Your task to perform on an android device: empty trash in google photos Image 0: 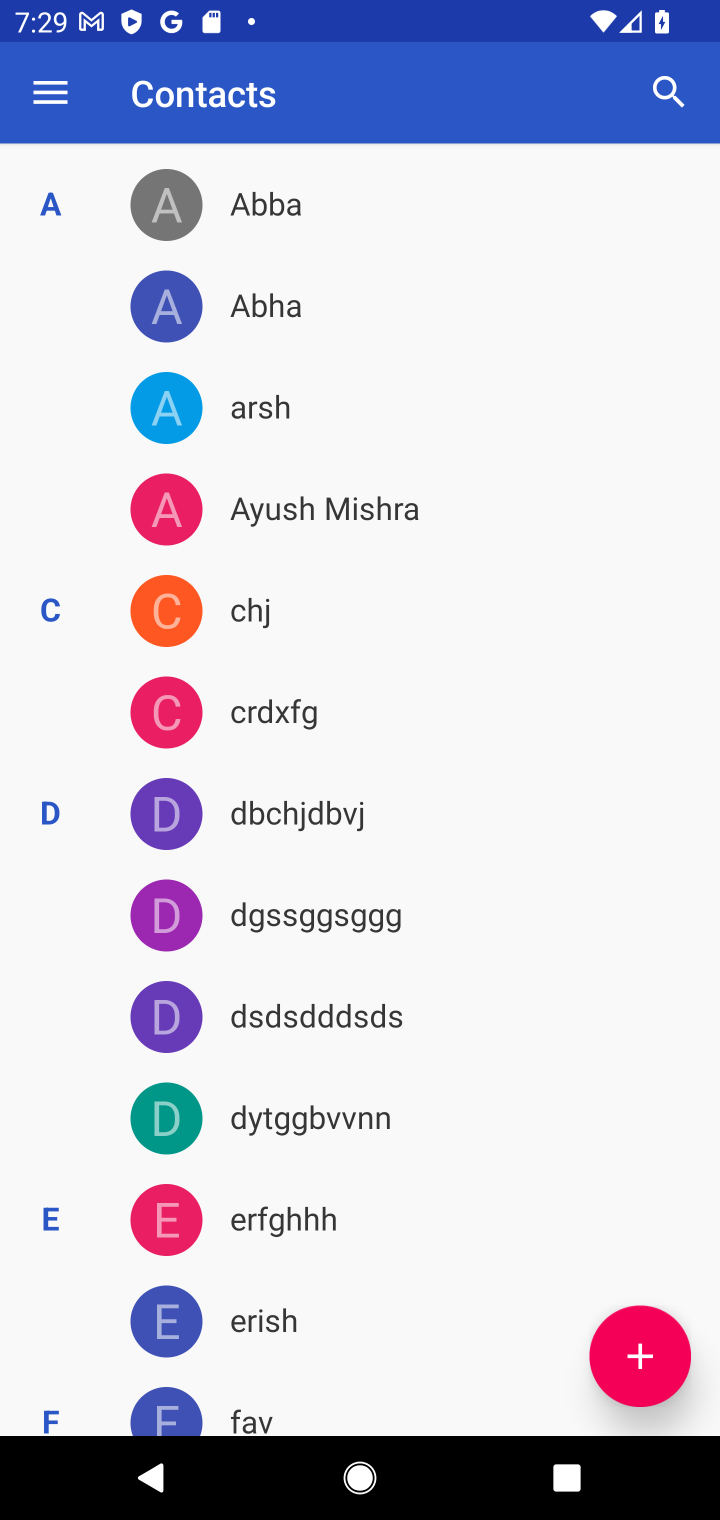
Step 0: press home button
Your task to perform on an android device: empty trash in google photos Image 1: 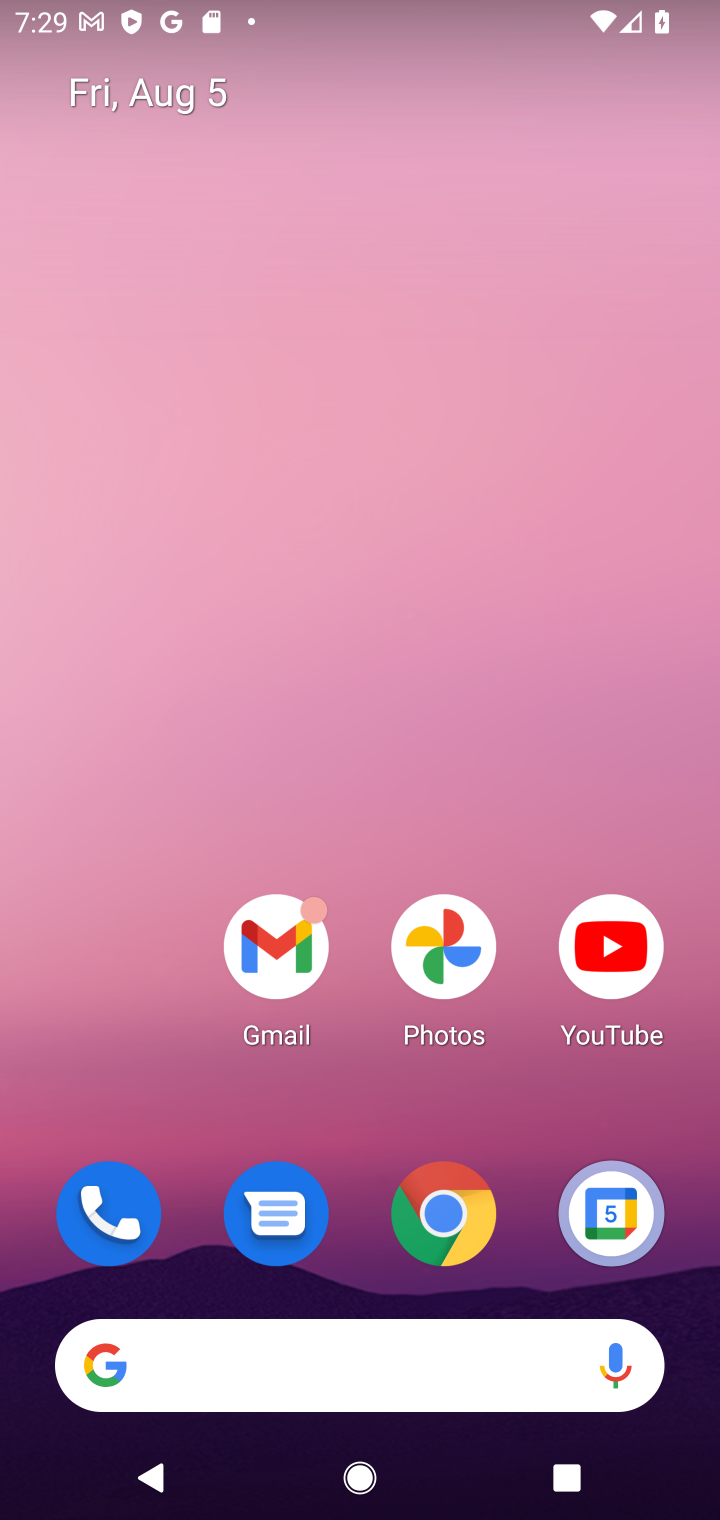
Step 1: drag from (393, 1150) to (408, 311)
Your task to perform on an android device: empty trash in google photos Image 2: 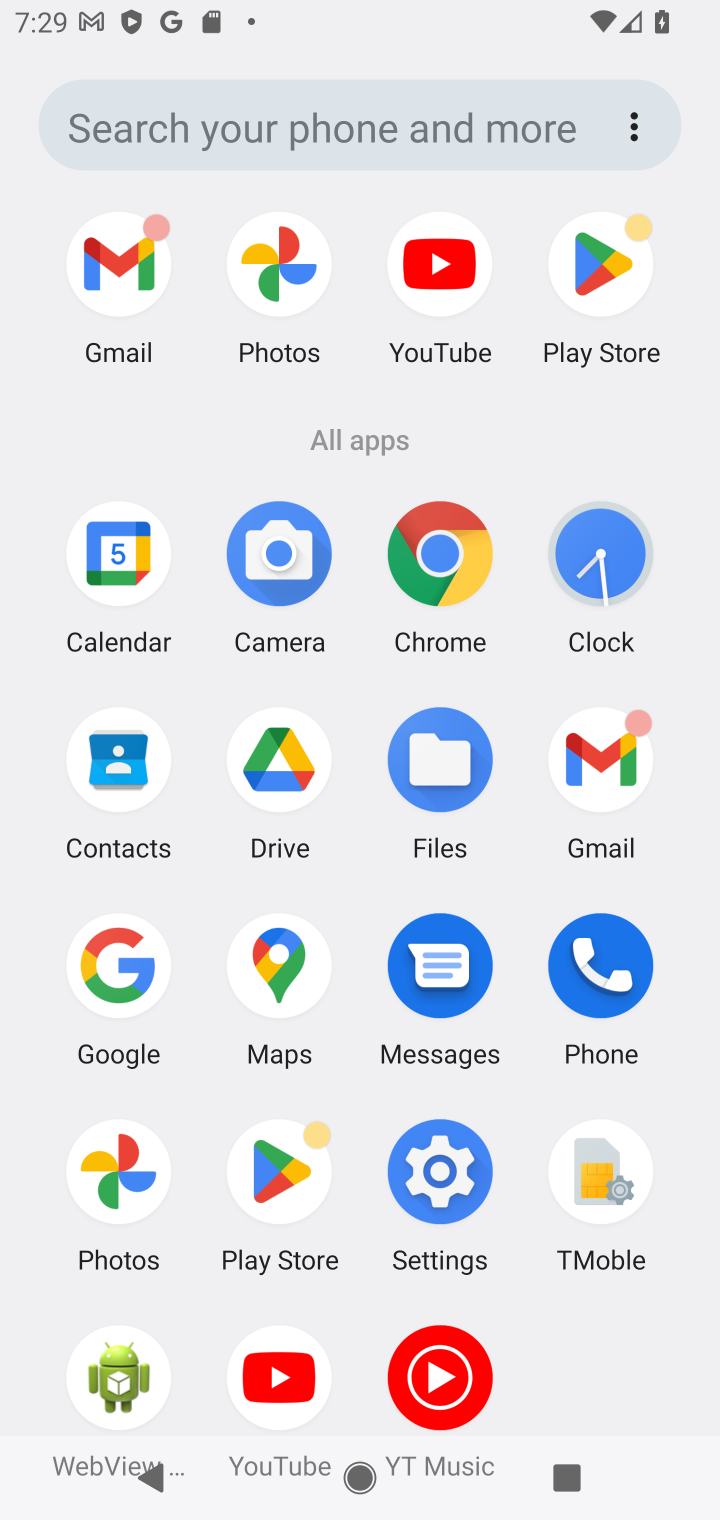
Step 2: click (99, 1113)
Your task to perform on an android device: empty trash in google photos Image 3: 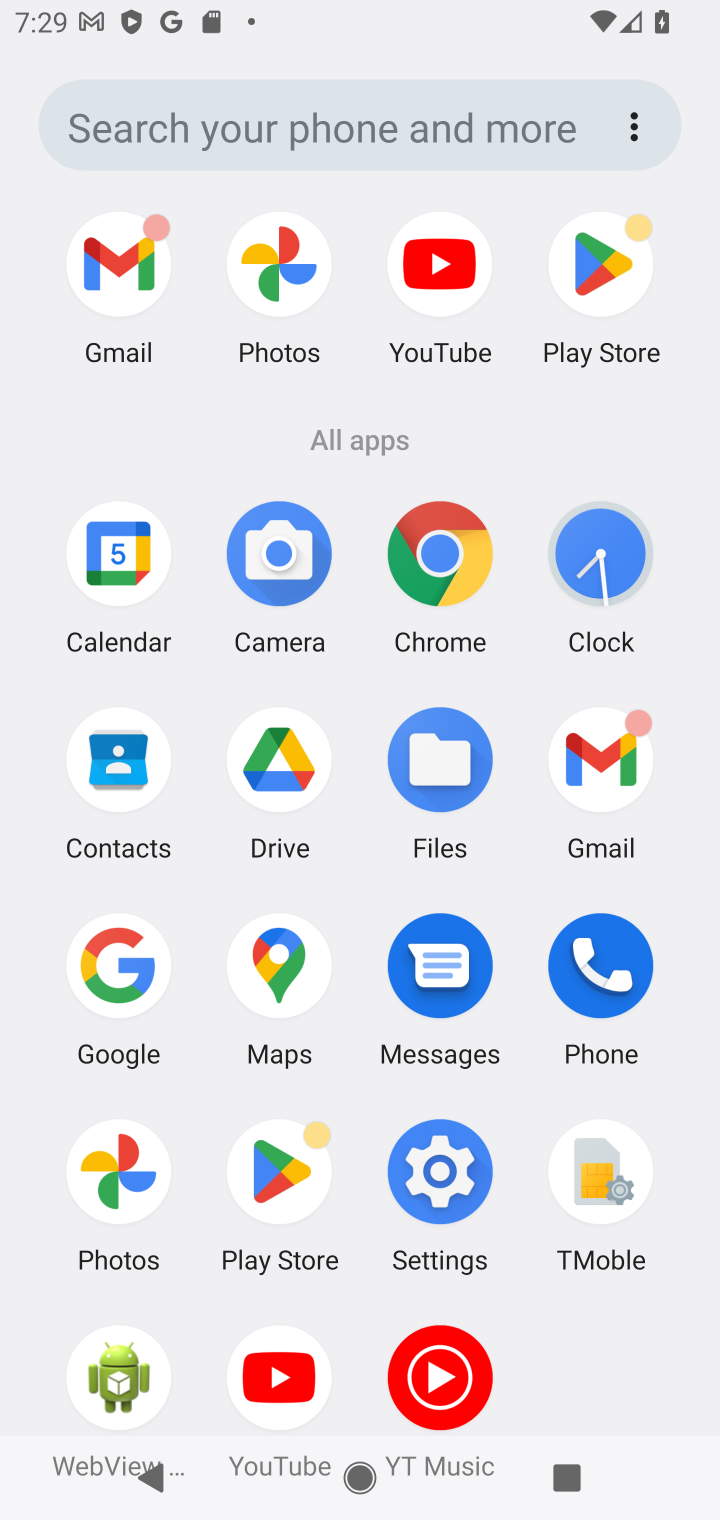
Step 3: click (121, 1141)
Your task to perform on an android device: empty trash in google photos Image 4: 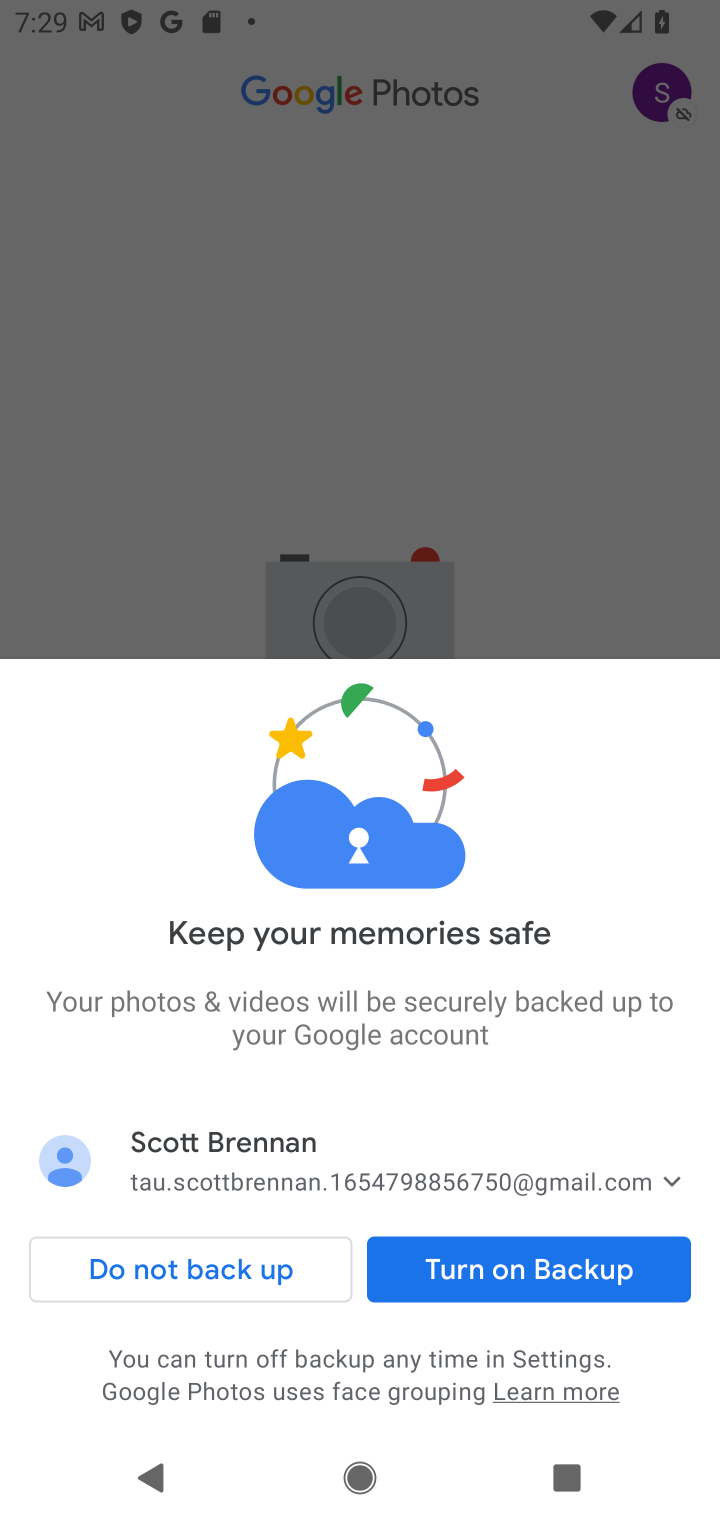
Step 4: click (550, 1270)
Your task to perform on an android device: empty trash in google photos Image 5: 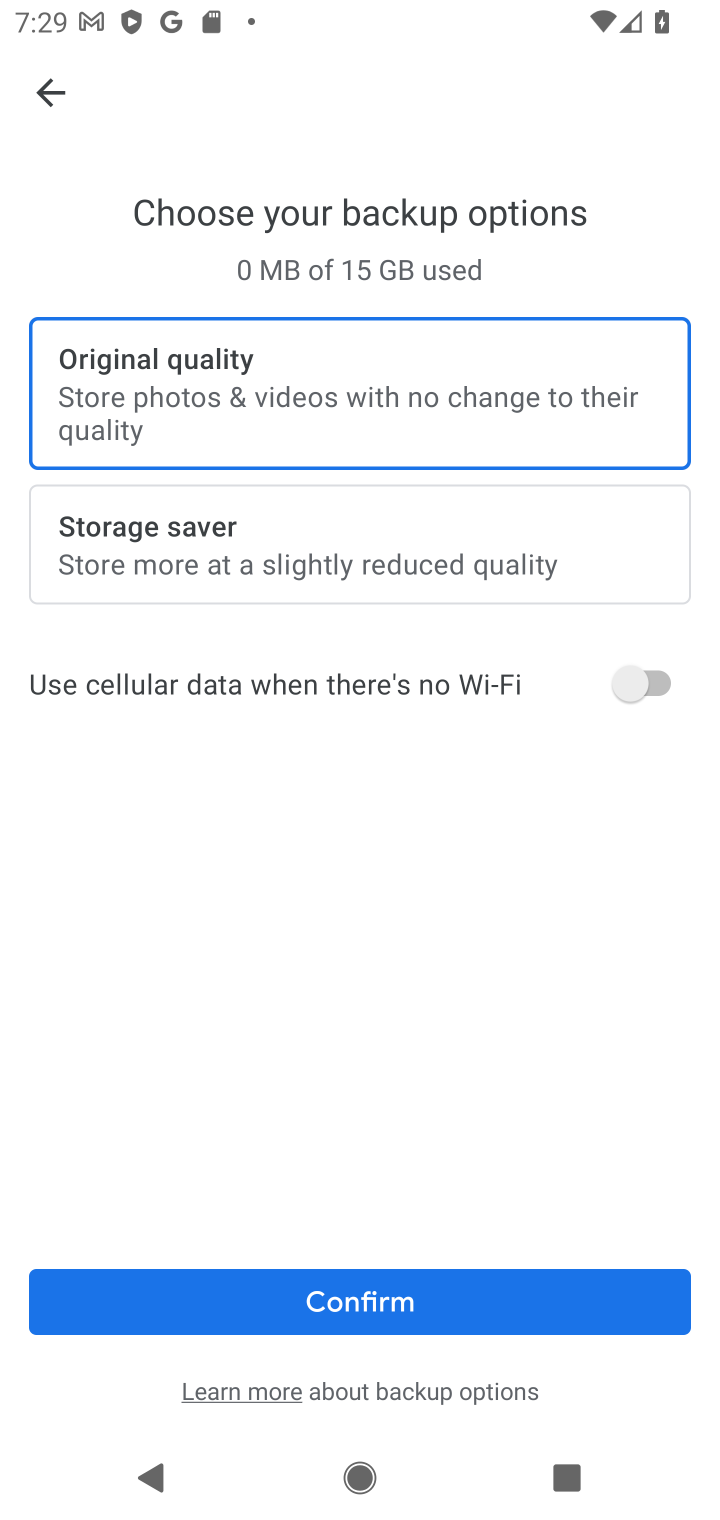
Step 5: click (346, 1282)
Your task to perform on an android device: empty trash in google photos Image 6: 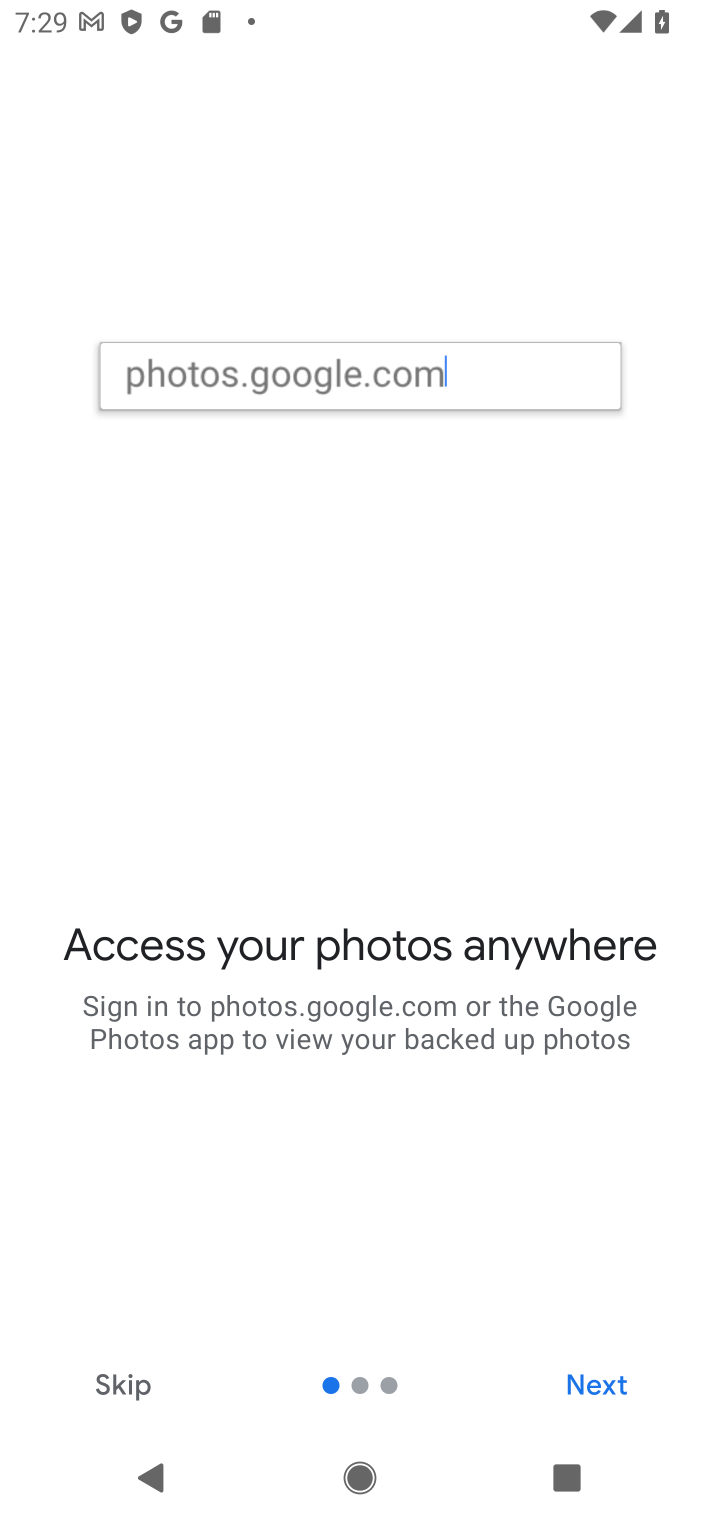
Step 6: click (613, 1369)
Your task to perform on an android device: empty trash in google photos Image 7: 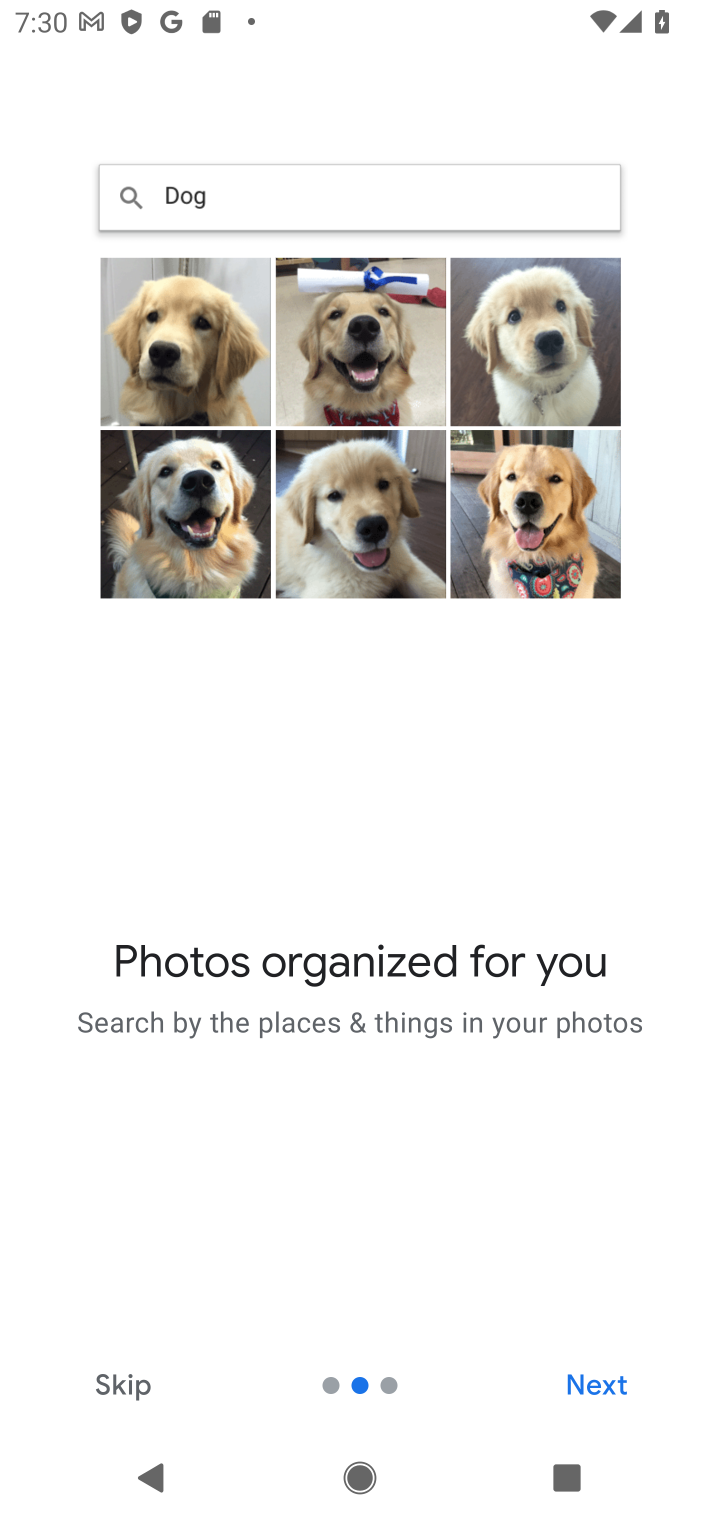
Step 7: click (613, 1369)
Your task to perform on an android device: empty trash in google photos Image 8: 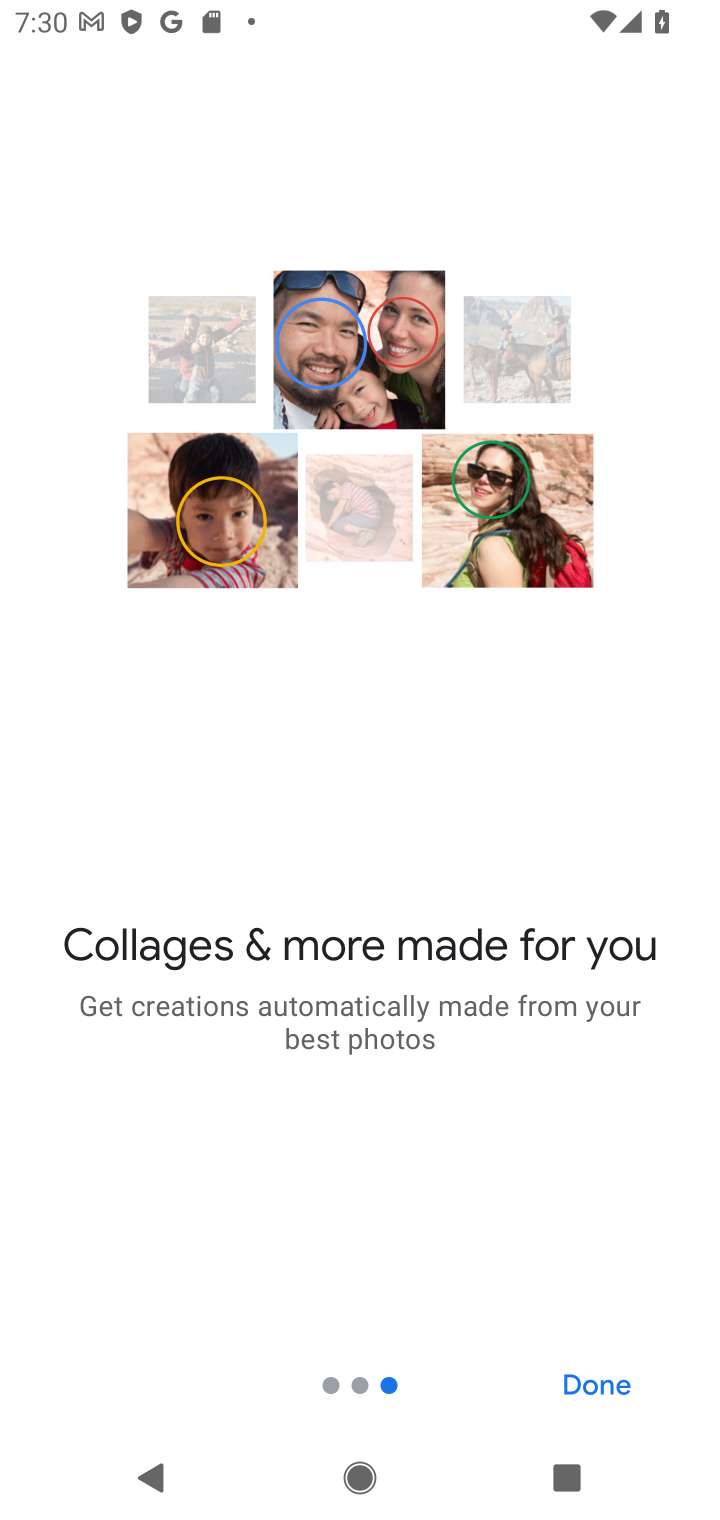
Step 8: click (577, 1387)
Your task to perform on an android device: empty trash in google photos Image 9: 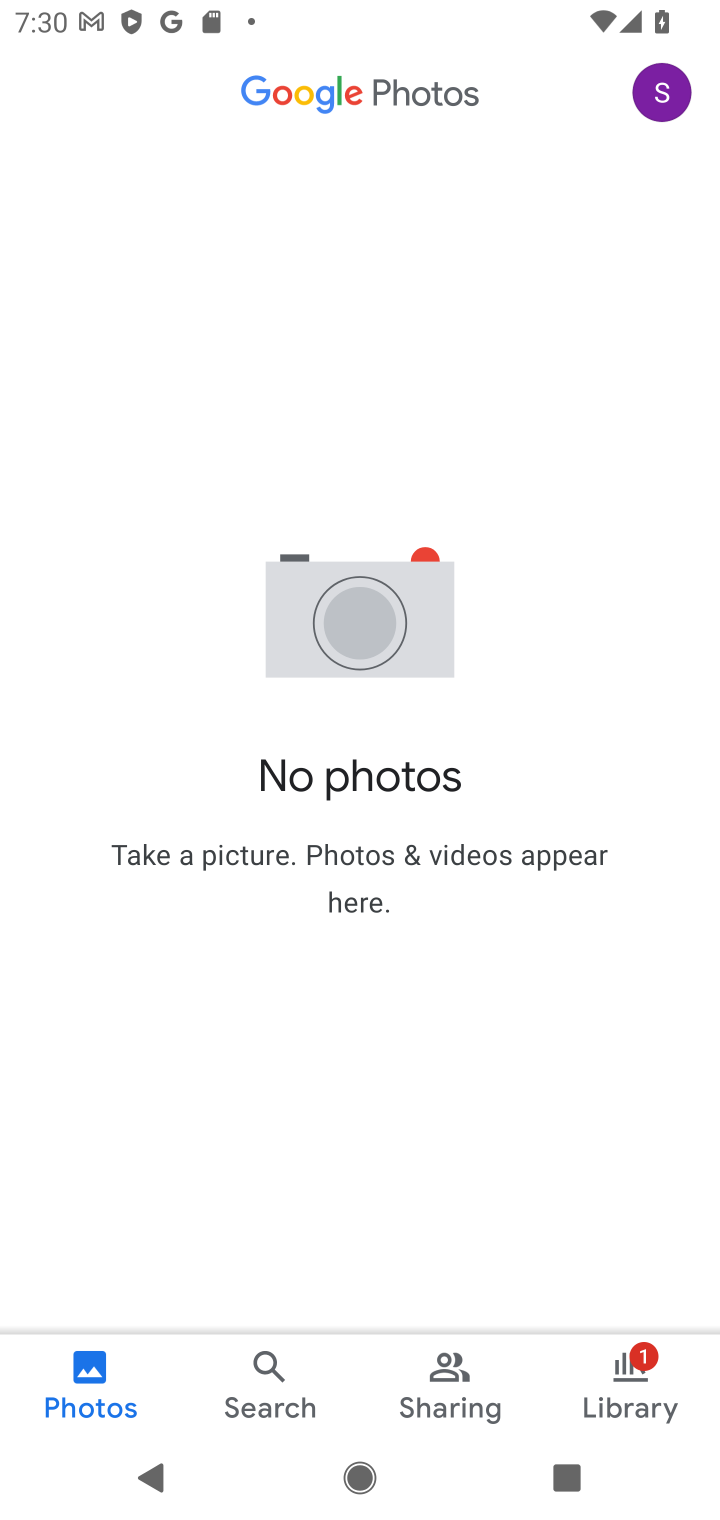
Step 9: click (256, 1359)
Your task to perform on an android device: empty trash in google photos Image 10: 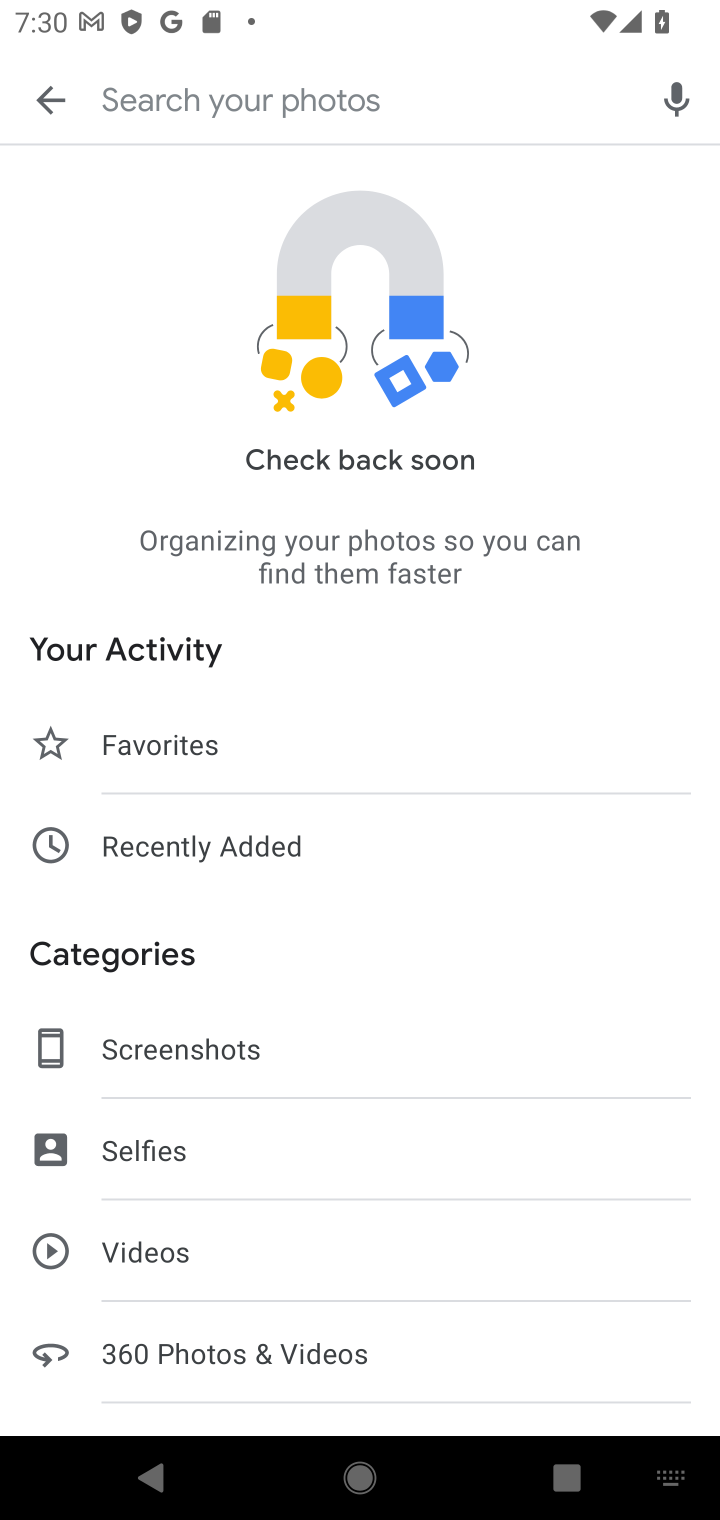
Step 10: drag from (256, 1214) to (349, 436)
Your task to perform on an android device: empty trash in google photos Image 11: 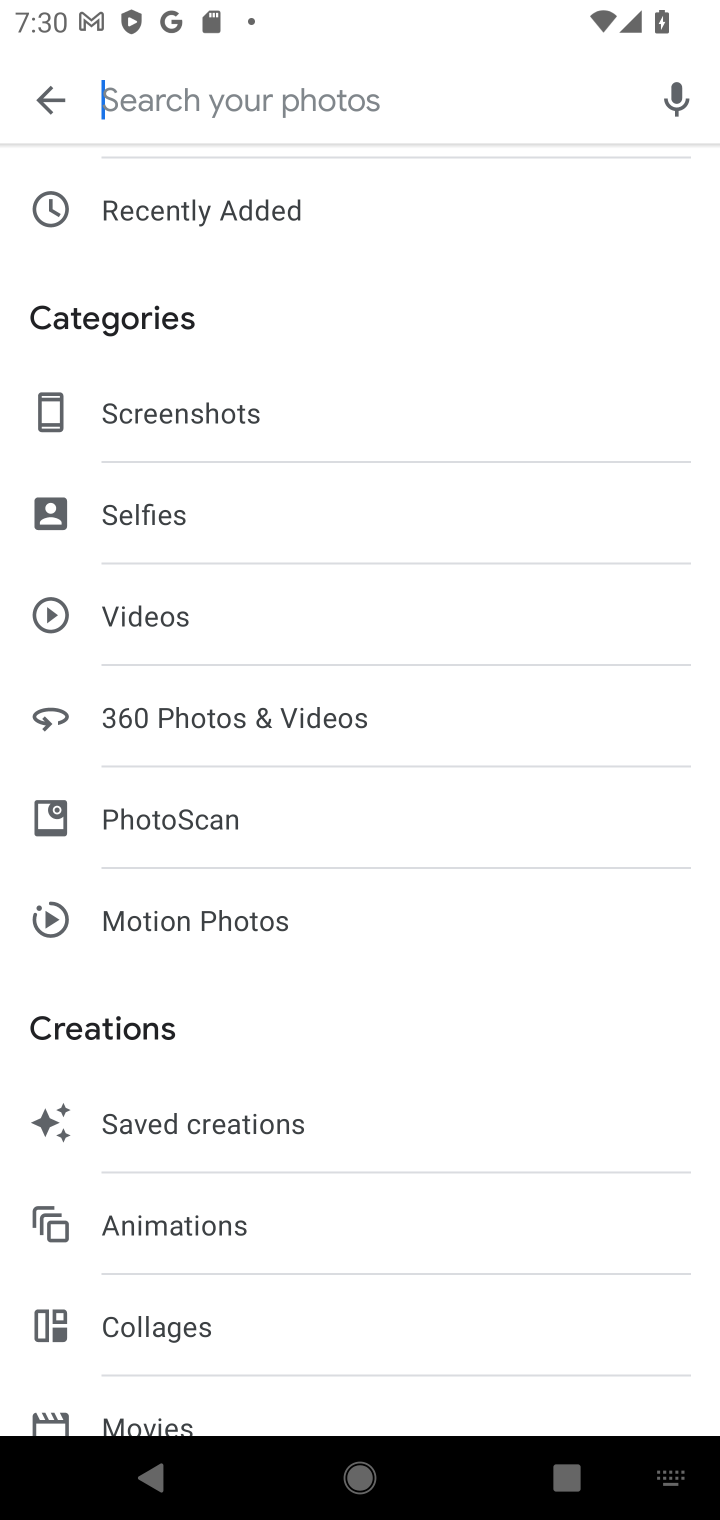
Step 11: drag from (365, 1234) to (530, 373)
Your task to perform on an android device: empty trash in google photos Image 12: 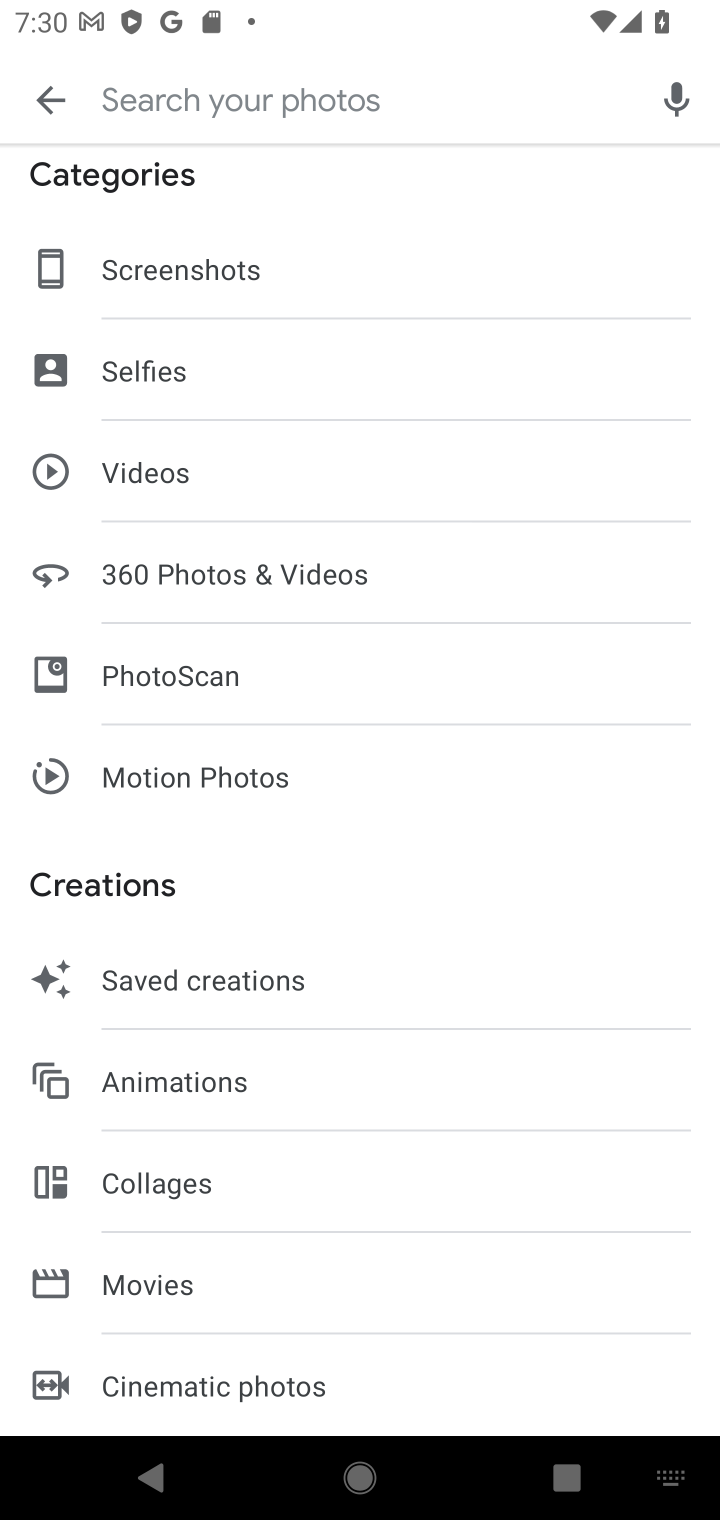
Step 12: drag from (230, 1200) to (363, 318)
Your task to perform on an android device: empty trash in google photos Image 13: 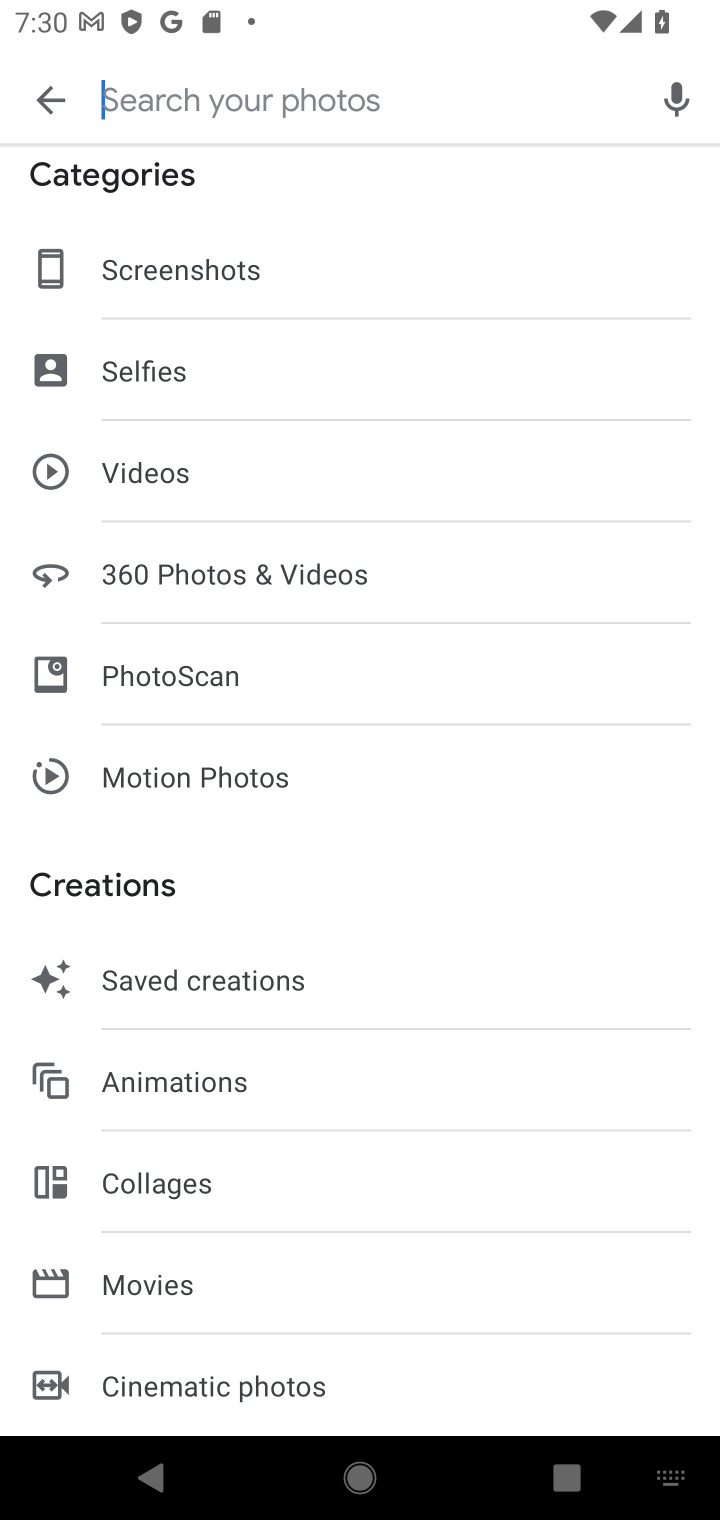
Step 13: drag from (283, 1189) to (435, 263)
Your task to perform on an android device: empty trash in google photos Image 14: 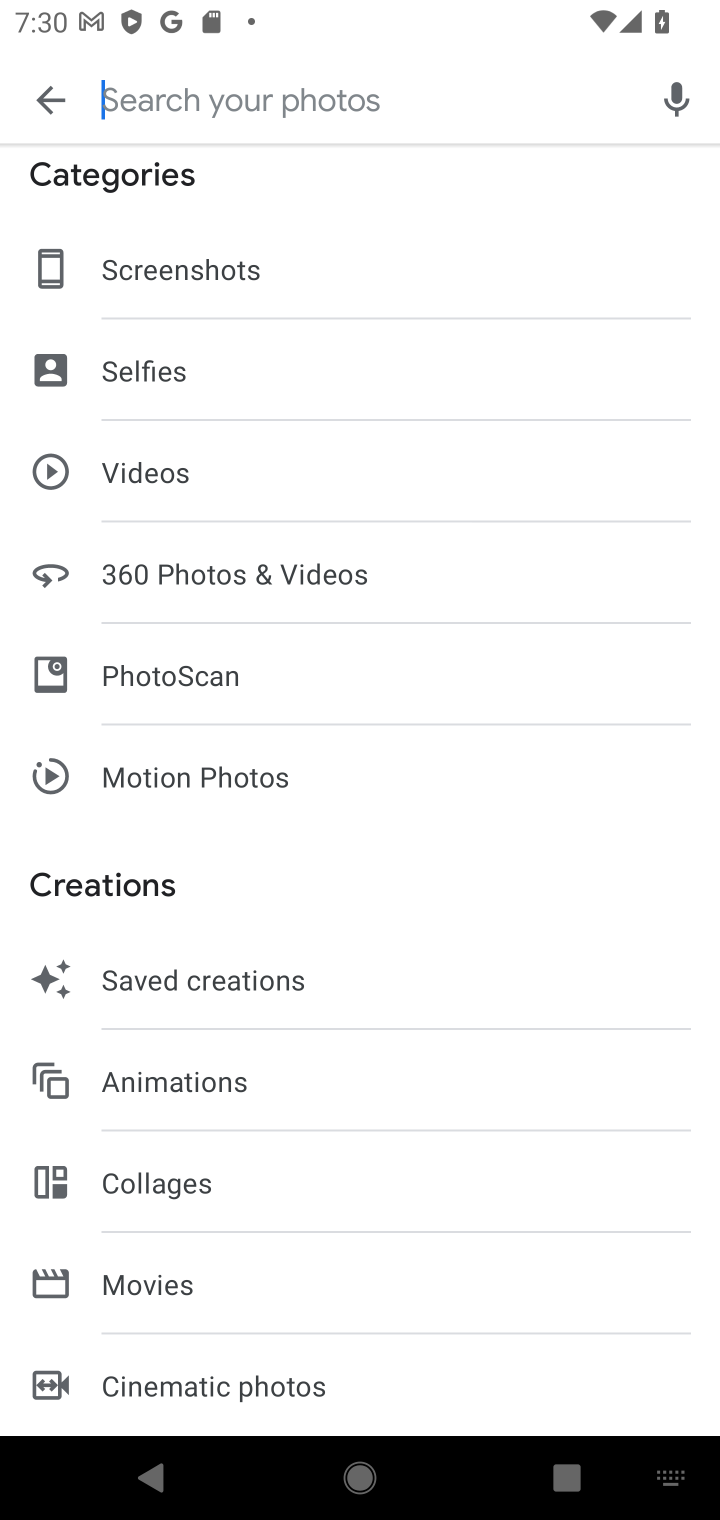
Step 14: drag from (394, 259) to (432, 1231)
Your task to perform on an android device: empty trash in google photos Image 15: 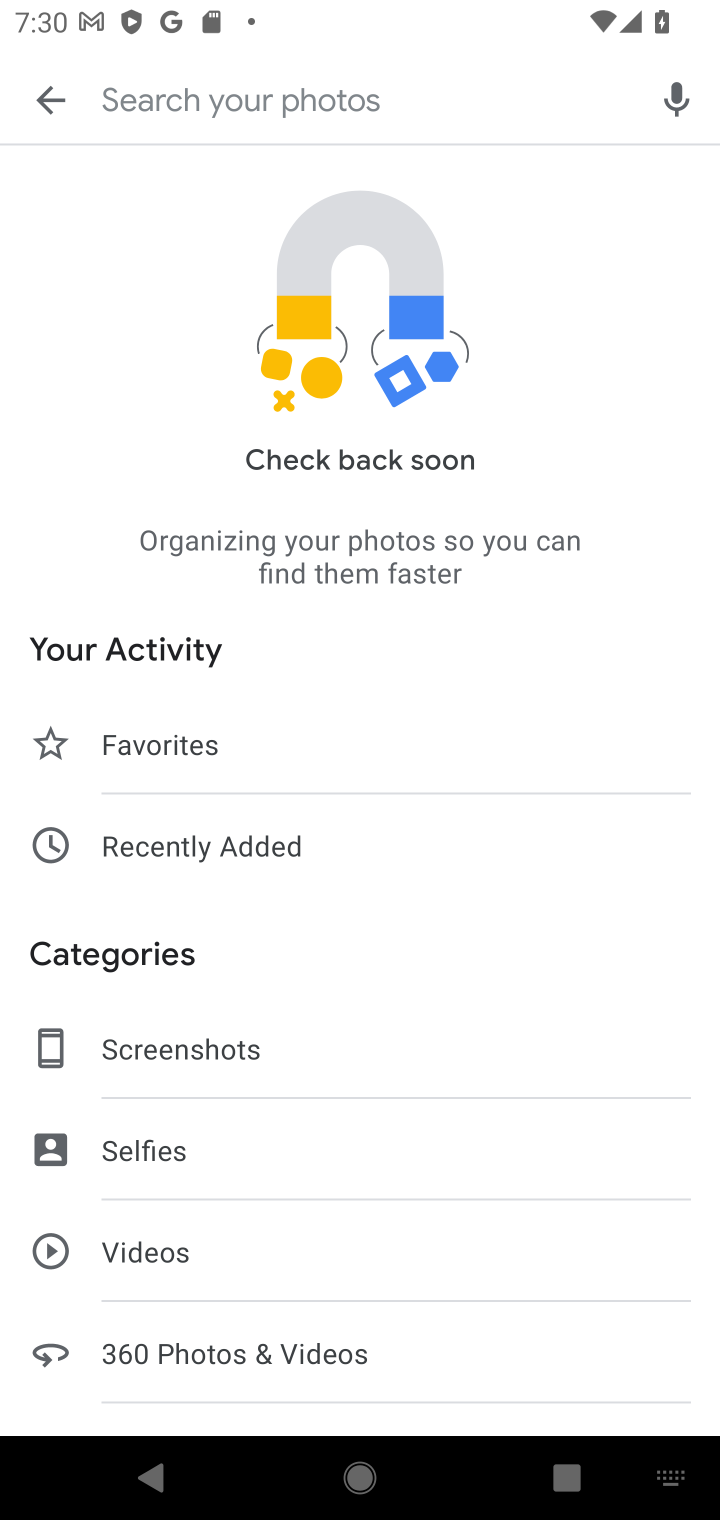
Step 15: click (197, 85)
Your task to perform on an android device: empty trash in google photos Image 16: 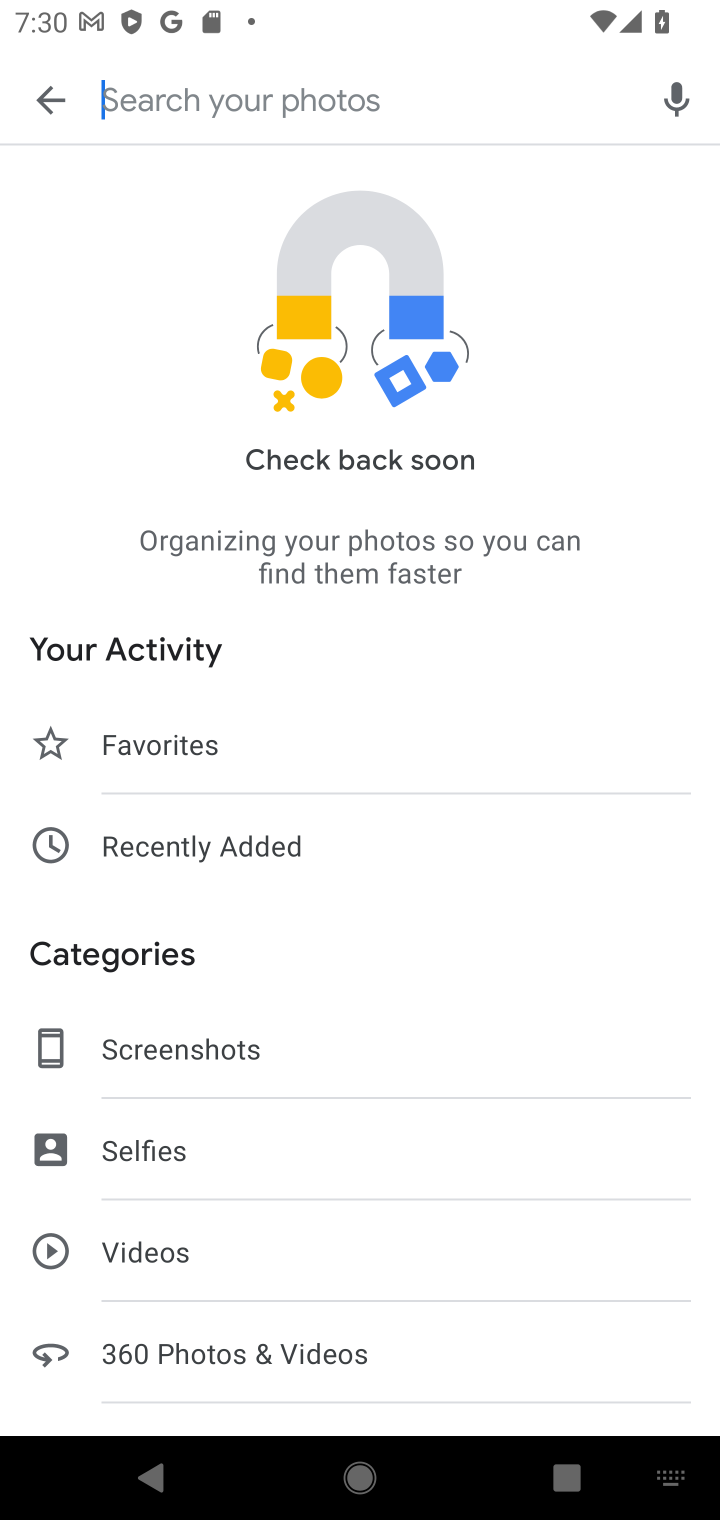
Step 16: type "trash"
Your task to perform on an android device: empty trash in google photos Image 17: 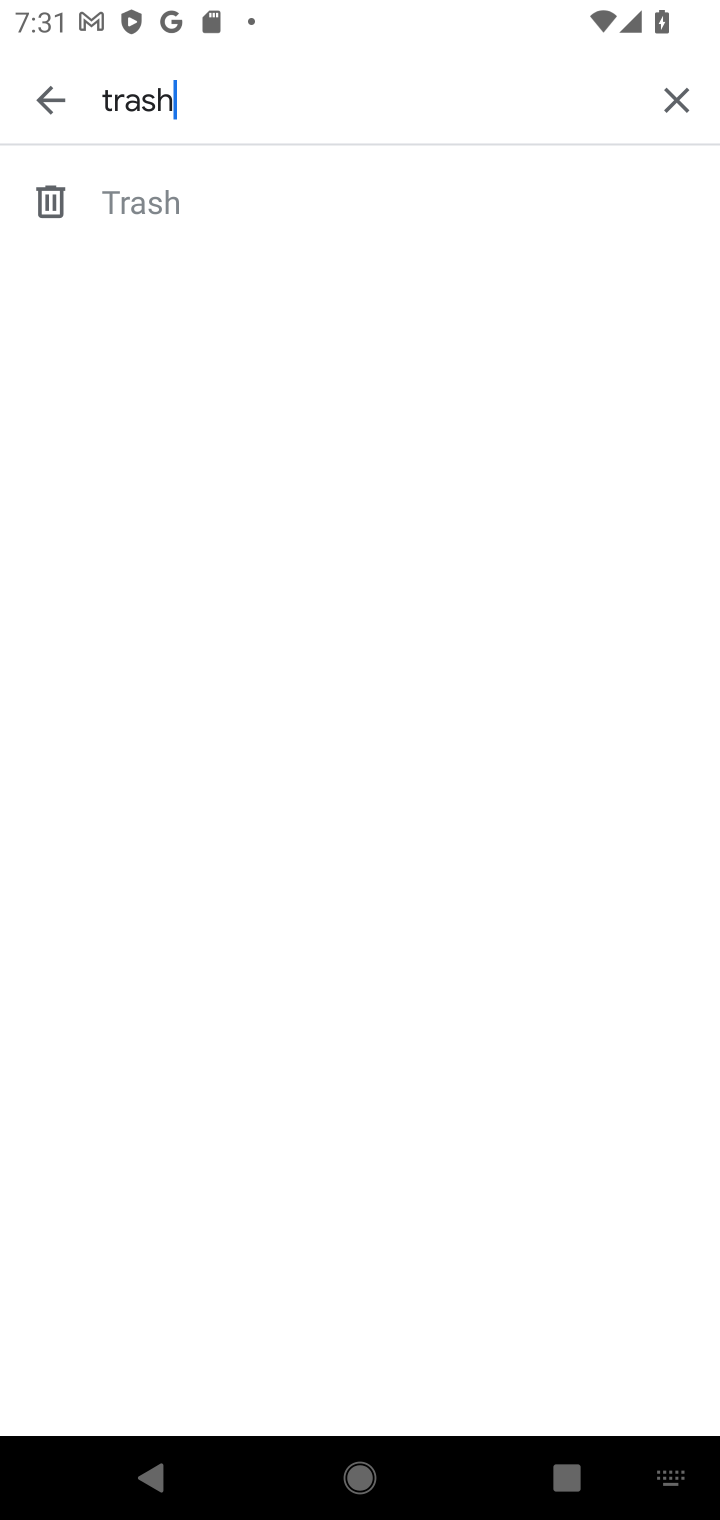
Step 17: click (192, 208)
Your task to perform on an android device: empty trash in google photos Image 18: 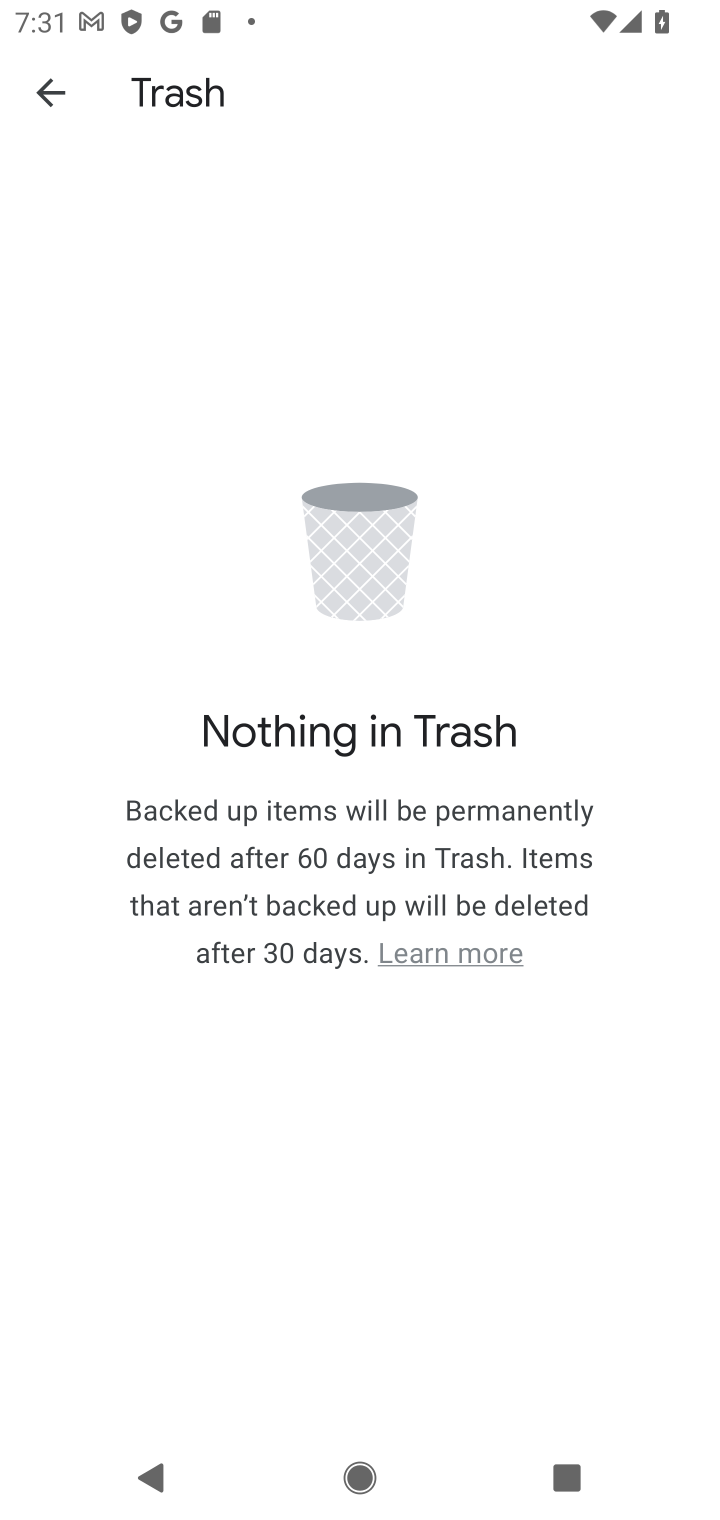
Step 18: task complete